Your task to perform on an android device: Open notification settings Image 0: 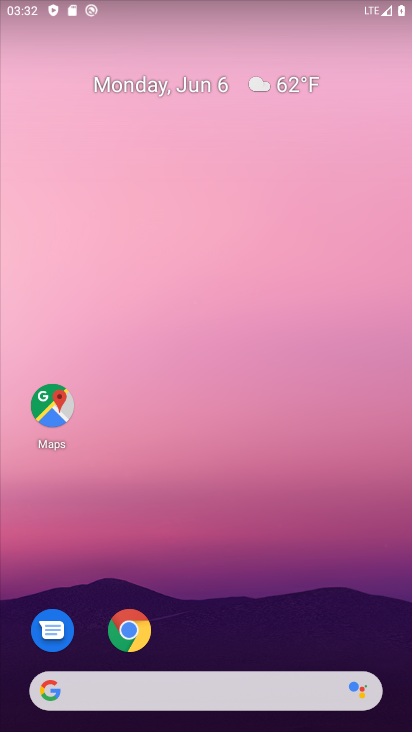
Step 0: press home button
Your task to perform on an android device: Open notification settings Image 1: 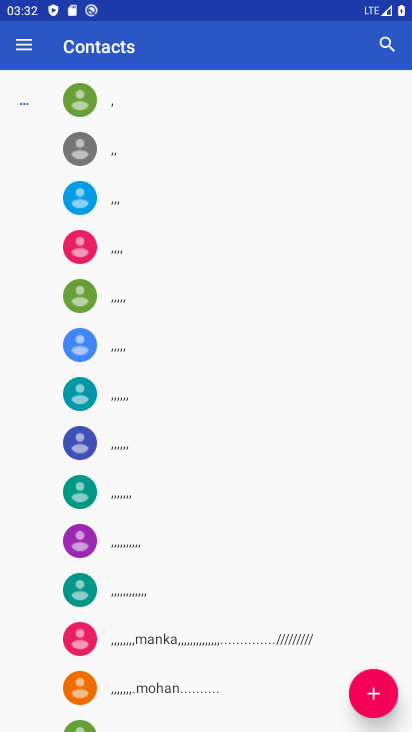
Step 1: drag from (292, 540) to (289, 17)
Your task to perform on an android device: Open notification settings Image 2: 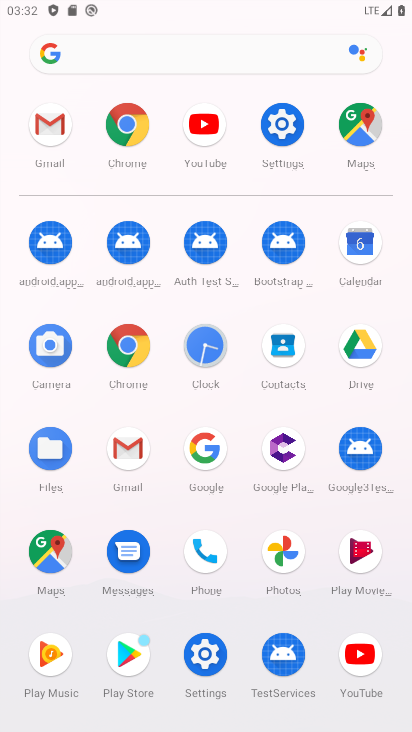
Step 2: click (278, 136)
Your task to perform on an android device: Open notification settings Image 3: 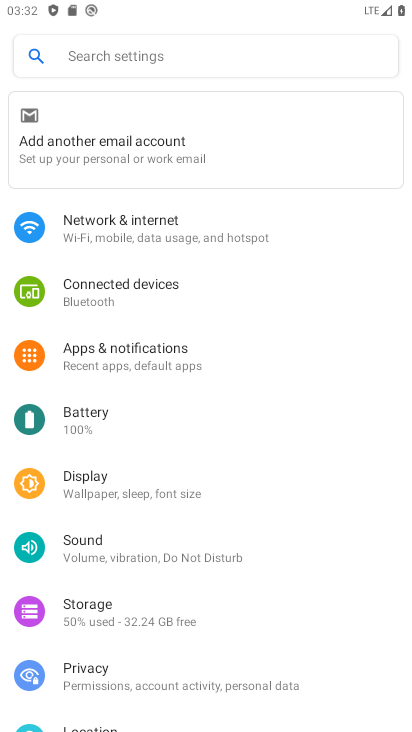
Step 3: click (94, 363)
Your task to perform on an android device: Open notification settings Image 4: 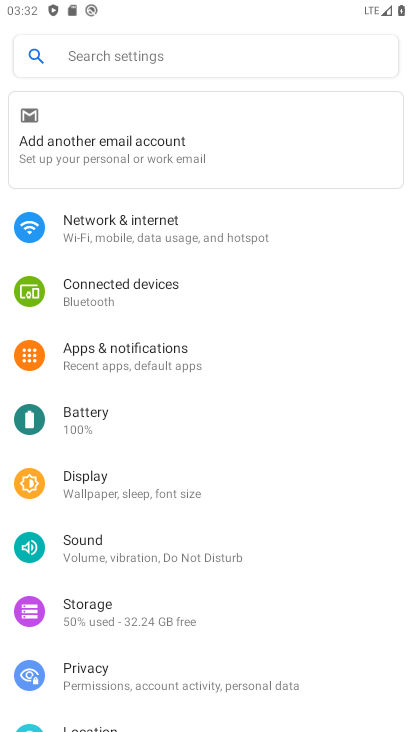
Step 4: click (107, 367)
Your task to perform on an android device: Open notification settings Image 5: 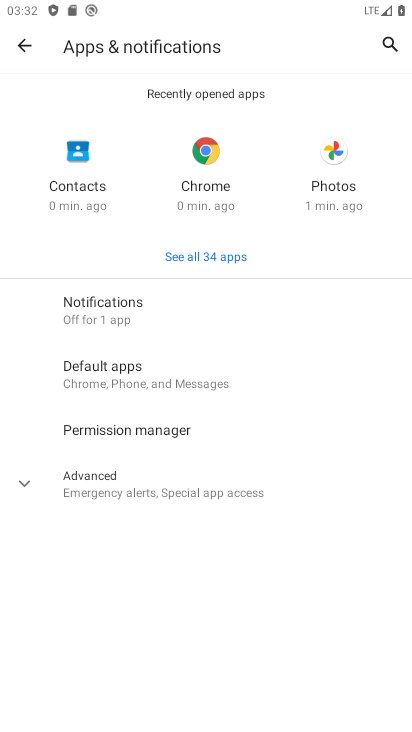
Step 5: click (111, 310)
Your task to perform on an android device: Open notification settings Image 6: 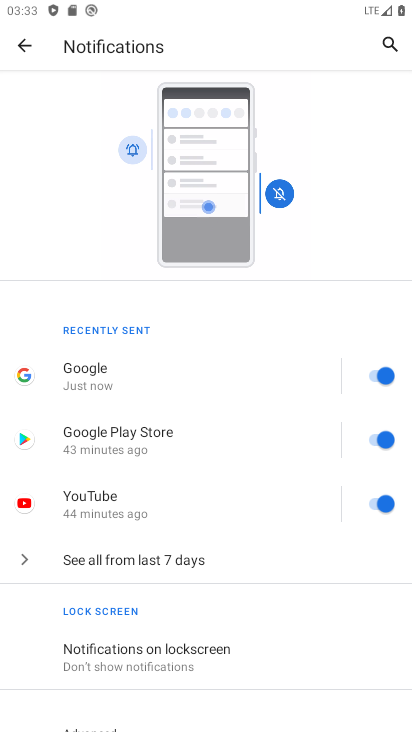
Step 6: task complete